Your task to perform on an android device: Search for bose soundlink on amazon, select the first entry, and add it to the cart. Image 0: 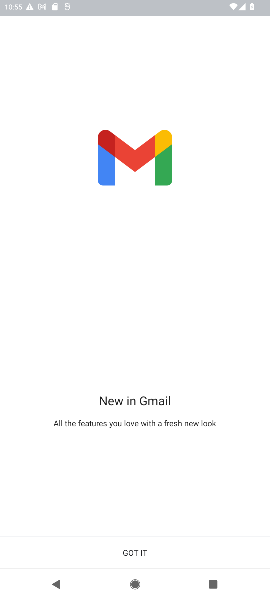
Step 0: press home button
Your task to perform on an android device: Search for bose soundlink on amazon, select the first entry, and add it to the cart. Image 1: 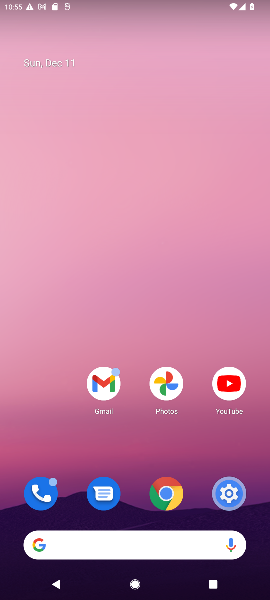
Step 1: click (132, 538)
Your task to perform on an android device: Search for bose soundlink on amazon, select the first entry, and add it to the cart. Image 2: 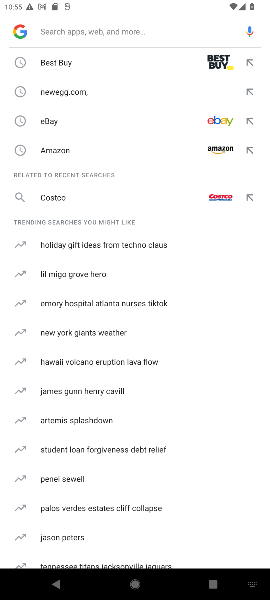
Step 2: type "amazon"
Your task to perform on an android device: Search for bose soundlink on amazon, select the first entry, and add it to the cart. Image 3: 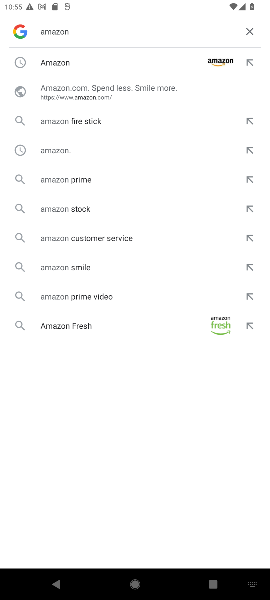
Step 3: click (76, 60)
Your task to perform on an android device: Search for bose soundlink on amazon, select the first entry, and add it to the cart. Image 4: 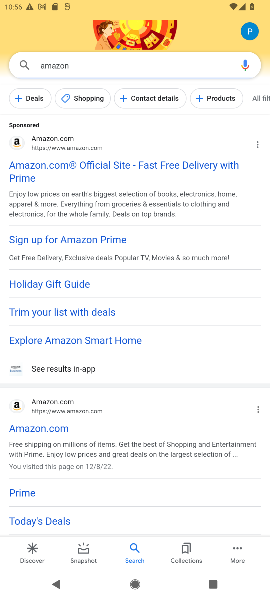
Step 4: click (37, 183)
Your task to perform on an android device: Search for bose soundlink on amazon, select the first entry, and add it to the cart. Image 5: 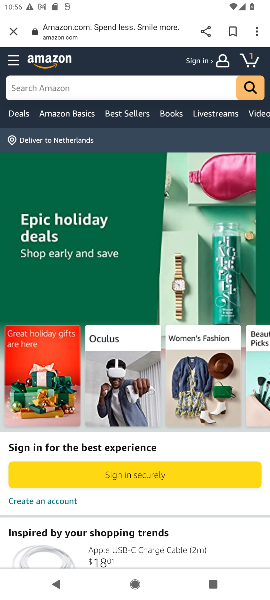
Step 5: click (145, 96)
Your task to perform on an android device: Search for bose soundlink on amazon, select the first entry, and add it to the cart. Image 6: 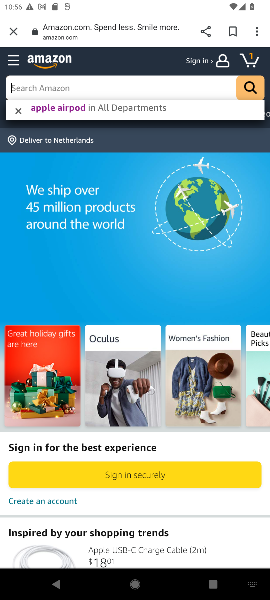
Step 6: type "bose soudlink"
Your task to perform on an android device: Search for bose soundlink on amazon, select the first entry, and add it to the cart. Image 7: 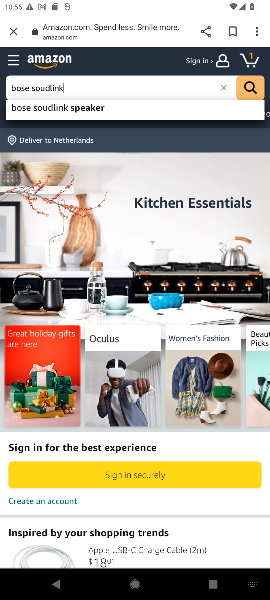
Step 7: click (255, 89)
Your task to perform on an android device: Search for bose soundlink on amazon, select the first entry, and add it to the cart. Image 8: 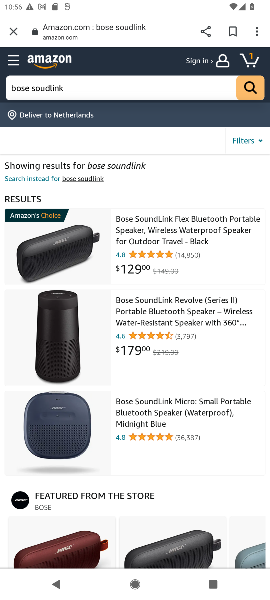
Step 8: click (125, 242)
Your task to perform on an android device: Search for bose soundlink on amazon, select the first entry, and add it to the cart. Image 9: 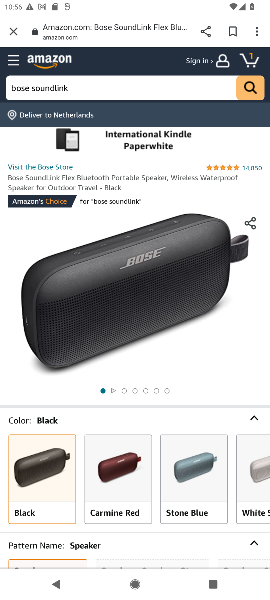
Step 9: drag from (180, 418) to (213, 161)
Your task to perform on an android device: Search for bose soundlink on amazon, select the first entry, and add it to the cart. Image 10: 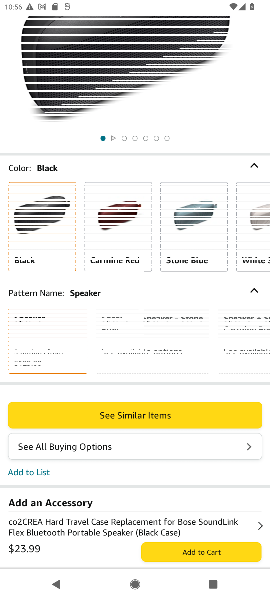
Step 10: click (213, 557)
Your task to perform on an android device: Search for bose soundlink on amazon, select the first entry, and add it to the cart. Image 11: 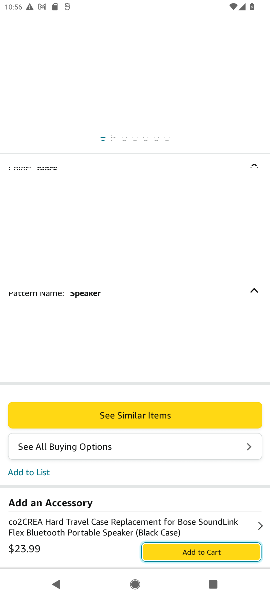
Step 11: task complete